Your task to perform on an android device: Open Google Chrome and click the shortcut for Amazon.com Image 0: 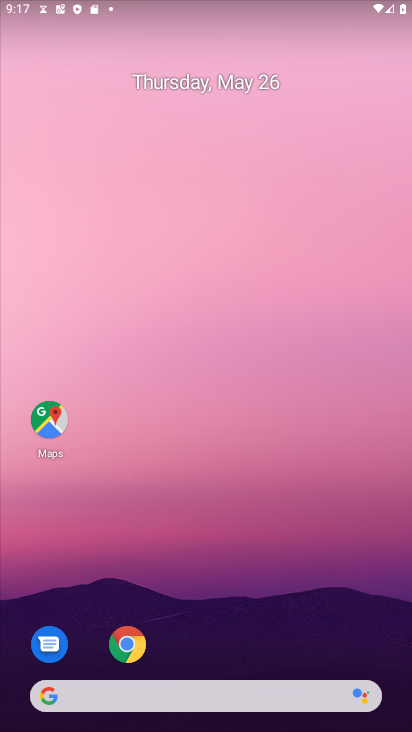
Step 0: click (142, 635)
Your task to perform on an android device: Open Google Chrome and click the shortcut for Amazon.com Image 1: 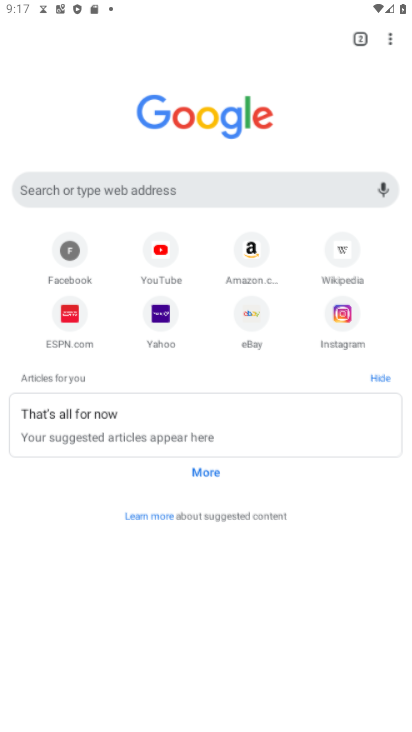
Step 1: click (253, 248)
Your task to perform on an android device: Open Google Chrome and click the shortcut for Amazon.com Image 2: 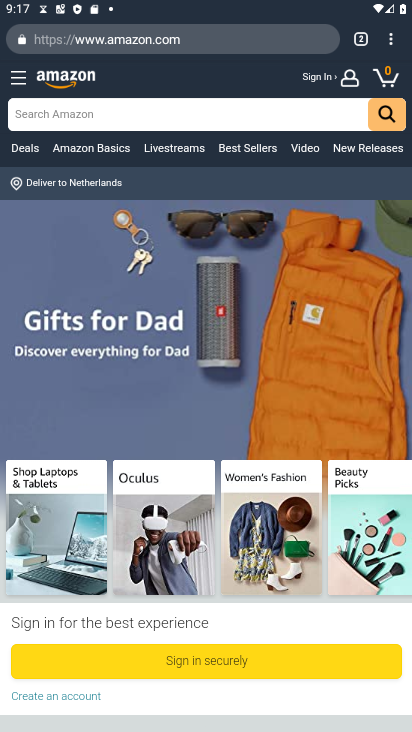
Step 2: task complete